Your task to perform on an android device: turn on data saver in the chrome app Image 0: 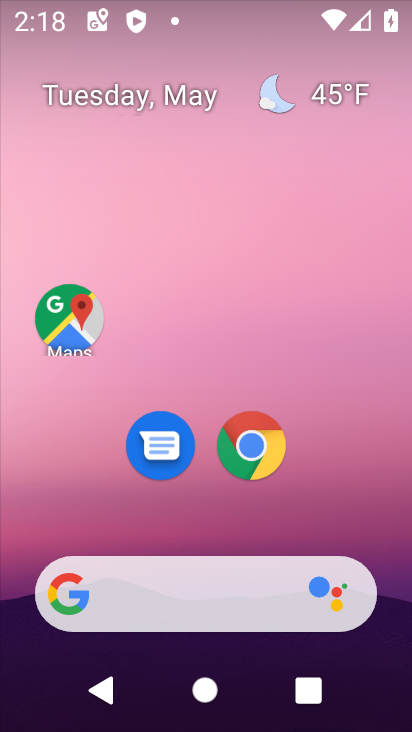
Step 0: click (253, 440)
Your task to perform on an android device: turn on data saver in the chrome app Image 1: 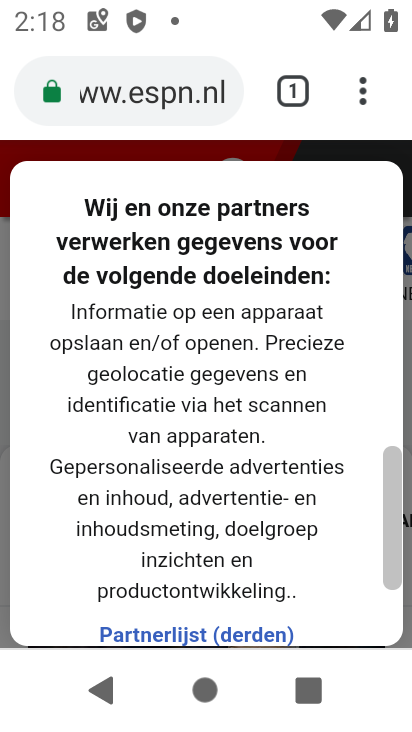
Step 1: click (379, 87)
Your task to perform on an android device: turn on data saver in the chrome app Image 2: 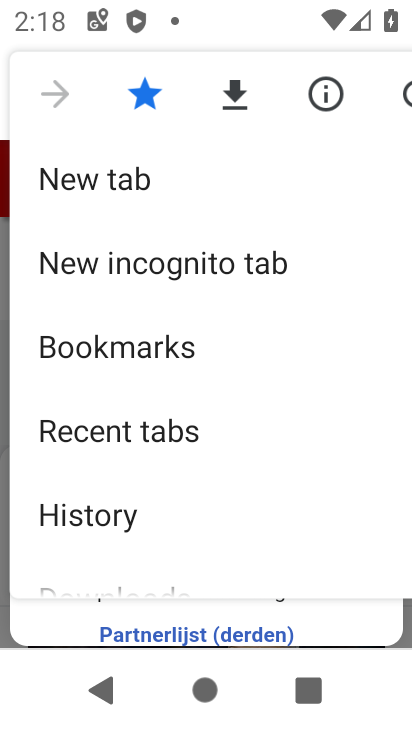
Step 2: drag from (147, 450) to (170, 151)
Your task to perform on an android device: turn on data saver in the chrome app Image 3: 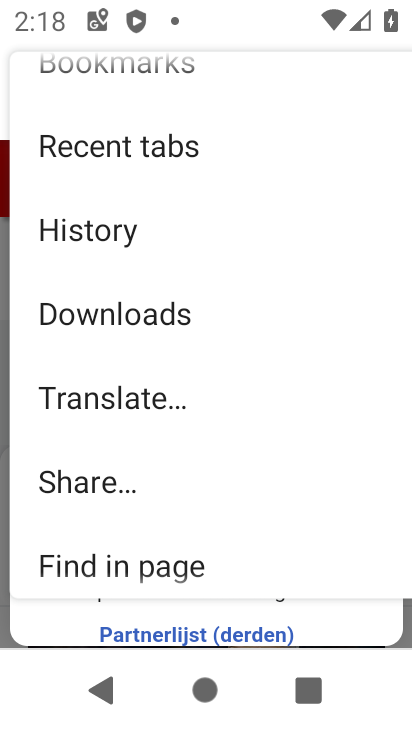
Step 3: drag from (114, 472) to (159, 152)
Your task to perform on an android device: turn on data saver in the chrome app Image 4: 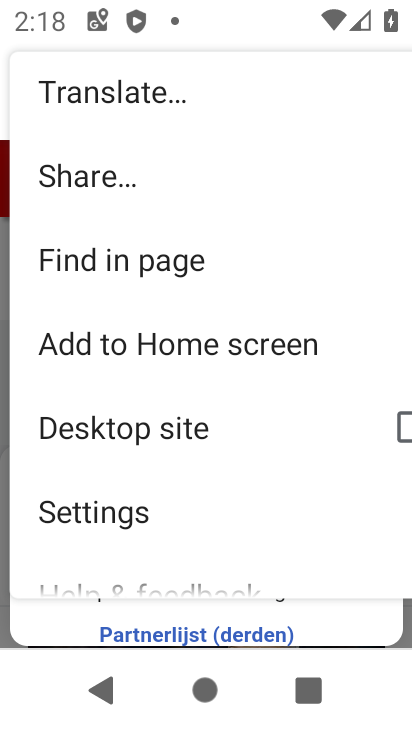
Step 4: click (127, 530)
Your task to perform on an android device: turn on data saver in the chrome app Image 5: 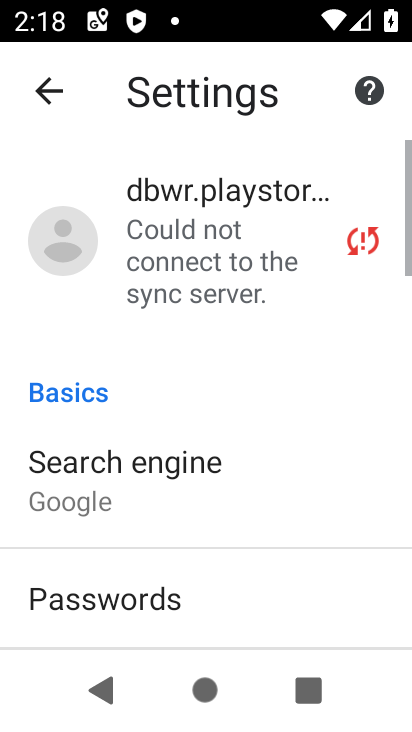
Step 5: drag from (127, 530) to (199, 108)
Your task to perform on an android device: turn on data saver in the chrome app Image 6: 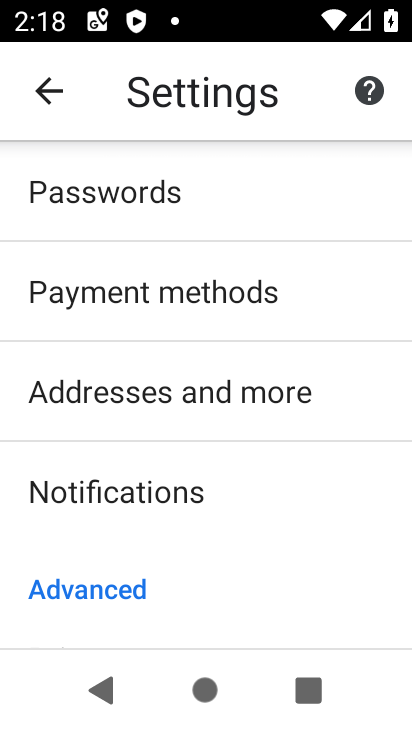
Step 6: drag from (224, 482) to (195, 141)
Your task to perform on an android device: turn on data saver in the chrome app Image 7: 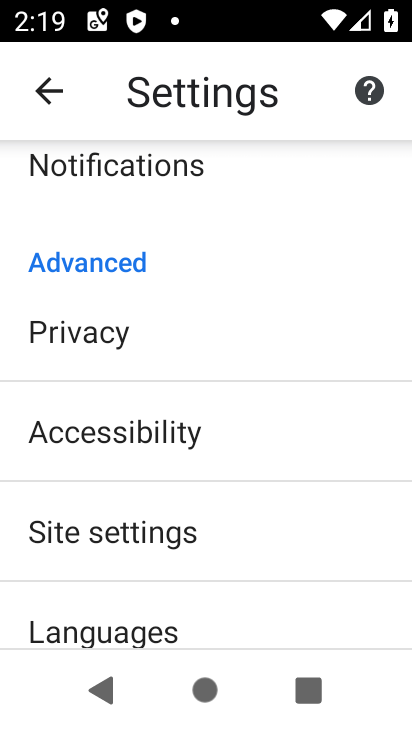
Step 7: drag from (173, 569) to (180, 255)
Your task to perform on an android device: turn on data saver in the chrome app Image 8: 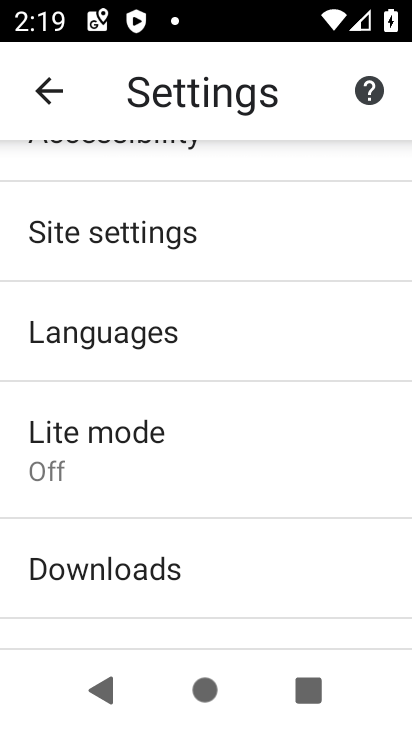
Step 8: click (157, 453)
Your task to perform on an android device: turn on data saver in the chrome app Image 9: 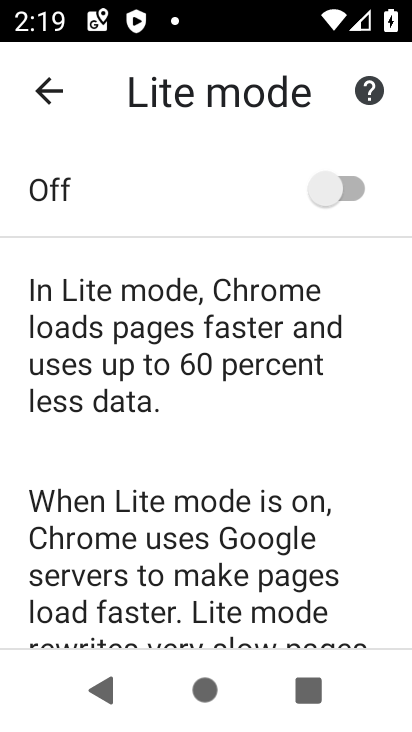
Step 9: click (353, 189)
Your task to perform on an android device: turn on data saver in the chrome app Image 10: 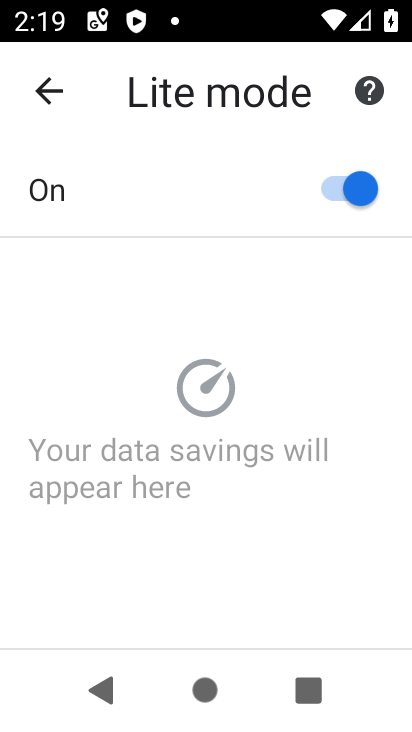
Step 10: task complete